Your task to perform on an android device: open app "LiveIn - Share Your Moment" (install if not already installed), go to login, and select forgot password Image 0: 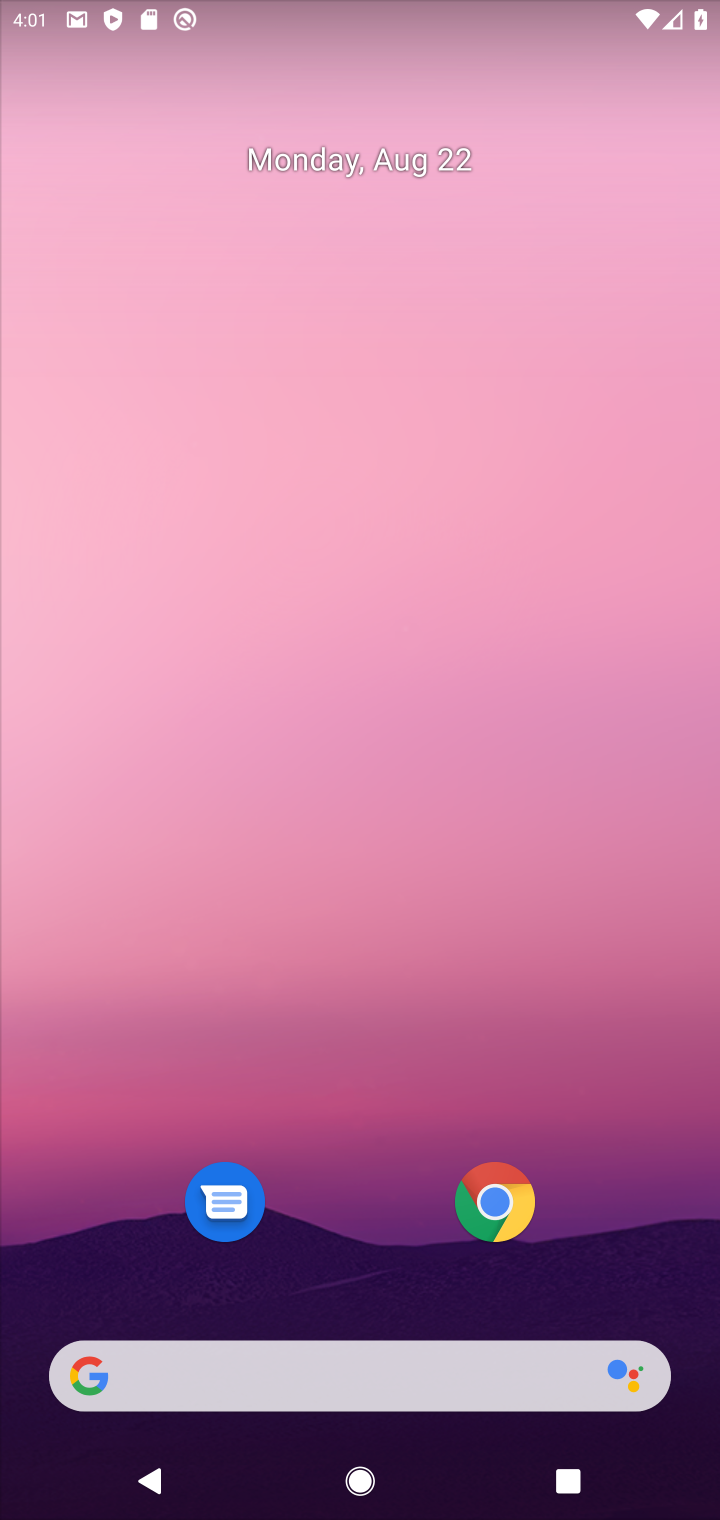
Step 0: drag from (388, 1037) to (449, 336)
Your task to perform on an android device: open app "LiveIn - Share Your Moment" (install if not already installed), go to login, and select forgot password Image 1: 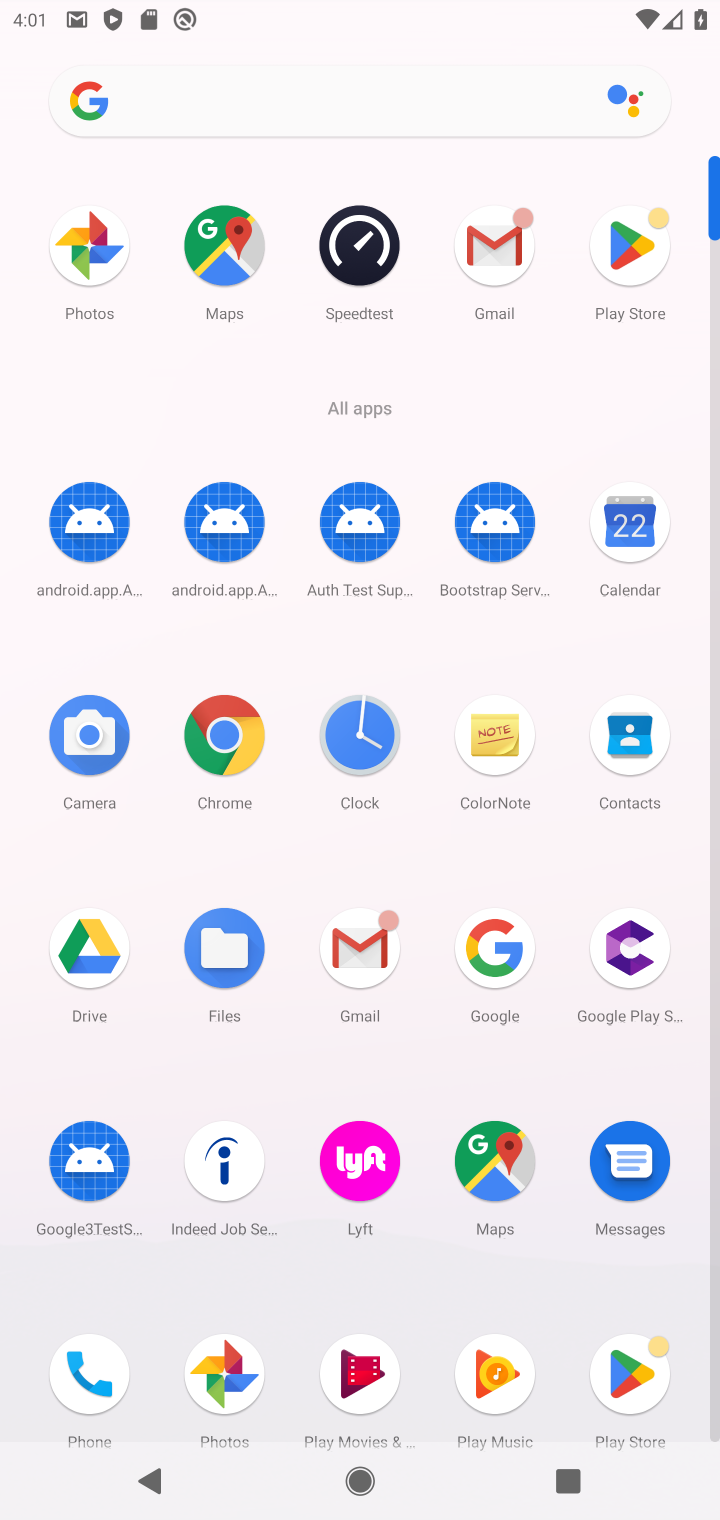
Step 1: click (626, 252)
Your task to perform on an android device: open app "LiveIn - Share Your Moment" (install if not already installed), go to login, and select forgot password Image 2: 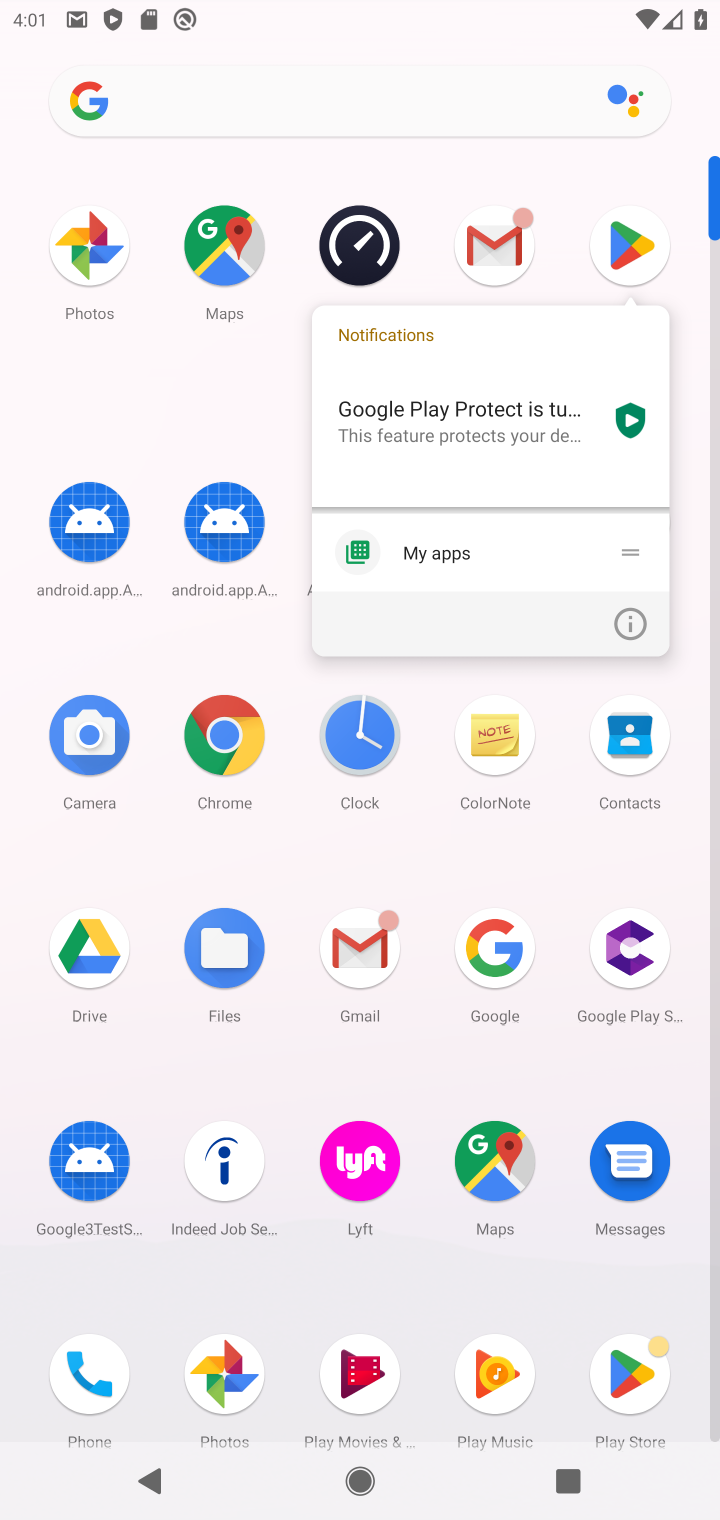
Step 2: click (626, 252)
Your task to perform on an android device: open app "LiveIn - Share Your Moment" (install if not already installed), go to login, and select forgot password Image 3: 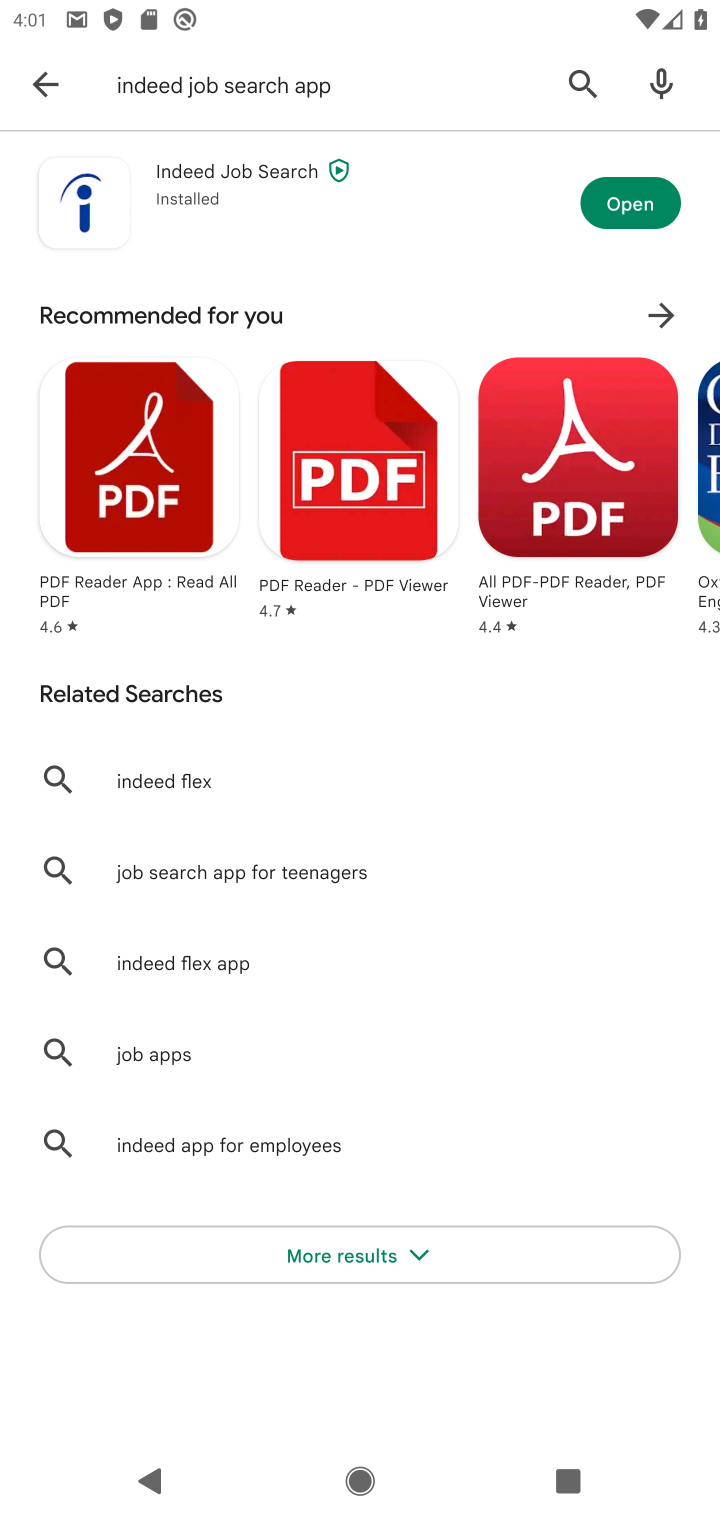
Step 3: click (297, 95)
Your task to perform on an android device: open app "LiveIn - Share Your Moment" (install if not already installed), go to login, and select forgot password Image 4: 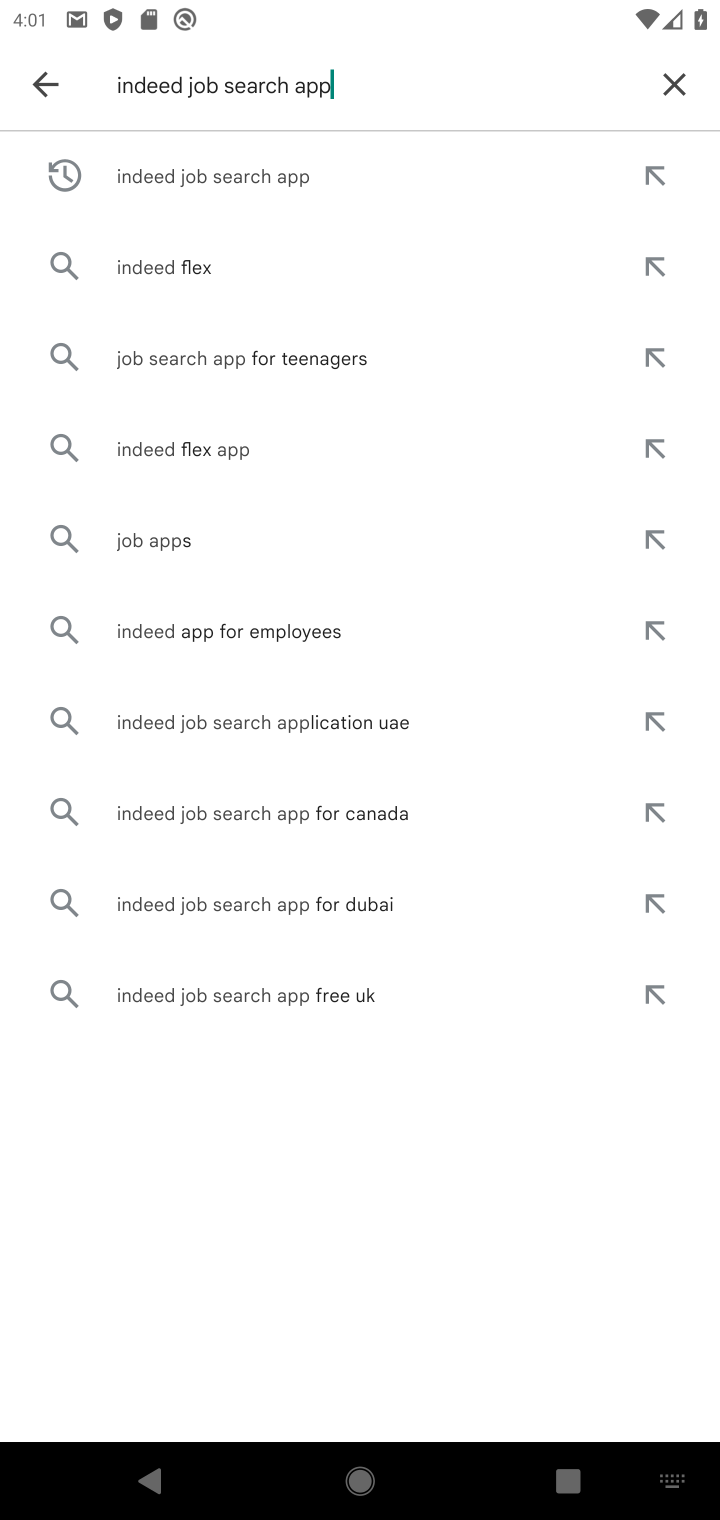
Step 4: click (665, 72)
Your task to perform on an android device: open app "LiveIn - Share Your Moment" (install if not already installed), go to login, and select forgot password Image 5: 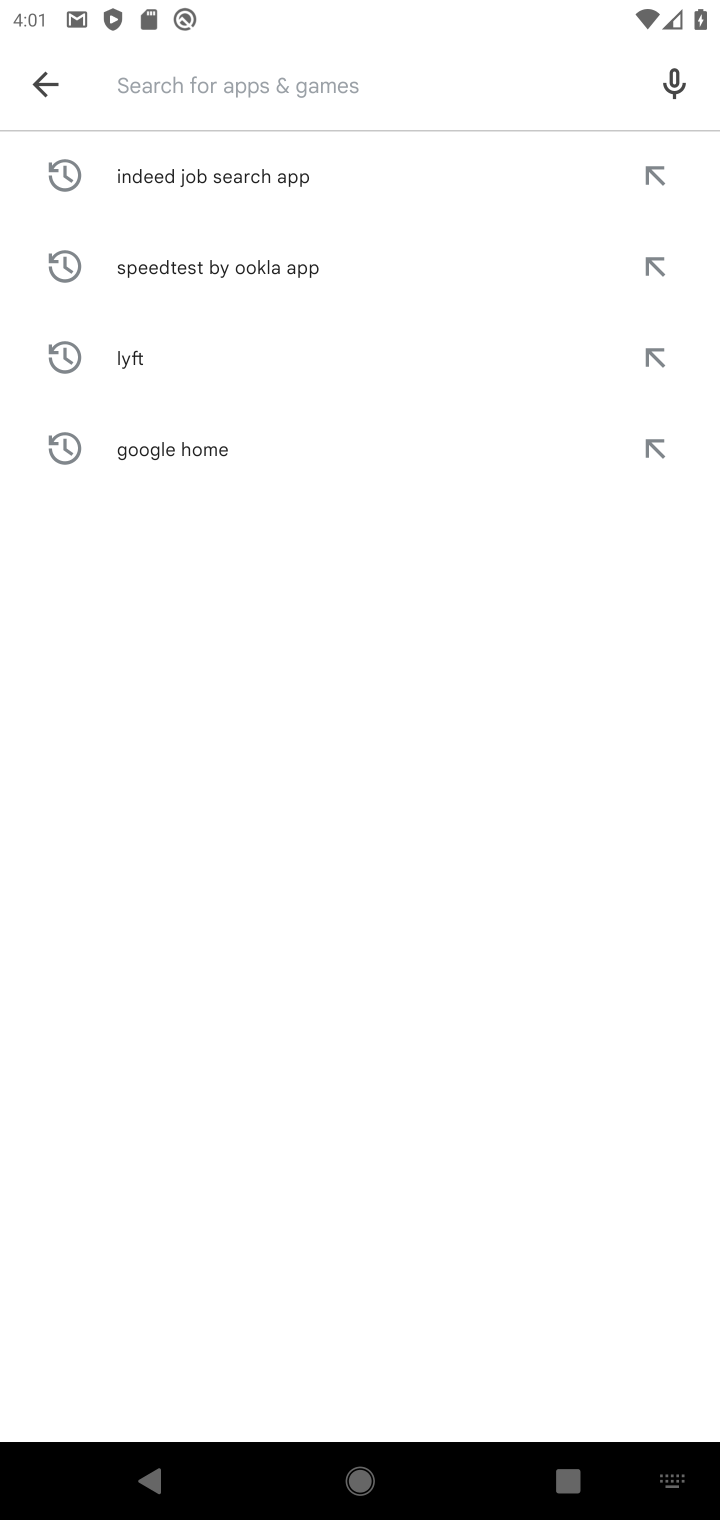
Step 5: type "LiveIn"
Your task to perform on an android device: open app "LiveIn - Share Your Moment" (install if not already installed), go to login, and select forgot password Image 6: 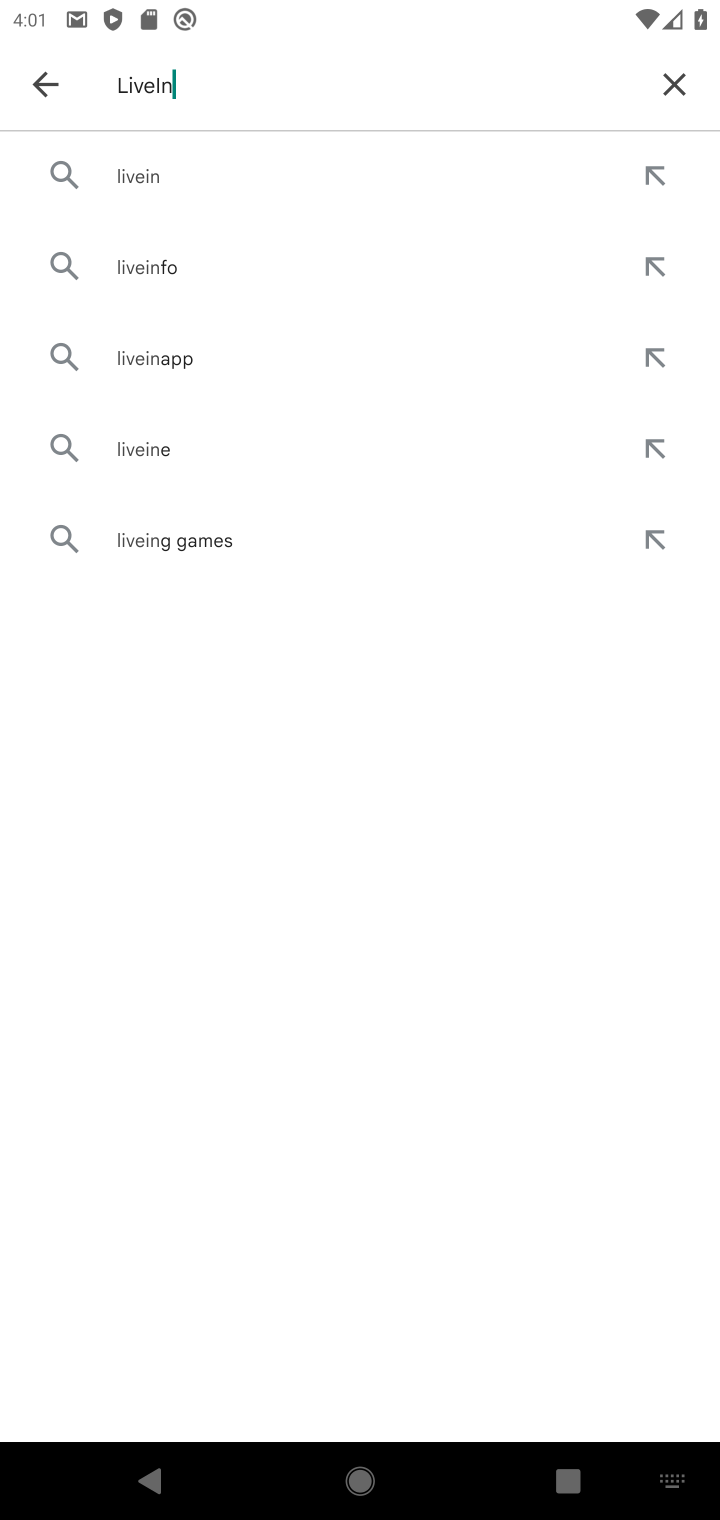
Step 6: click (155, 159)
Your task to perform on an android device: open app "LiveIn - Share Your Moment" (install if not already installed), go to login, and select forgot password Image 7: 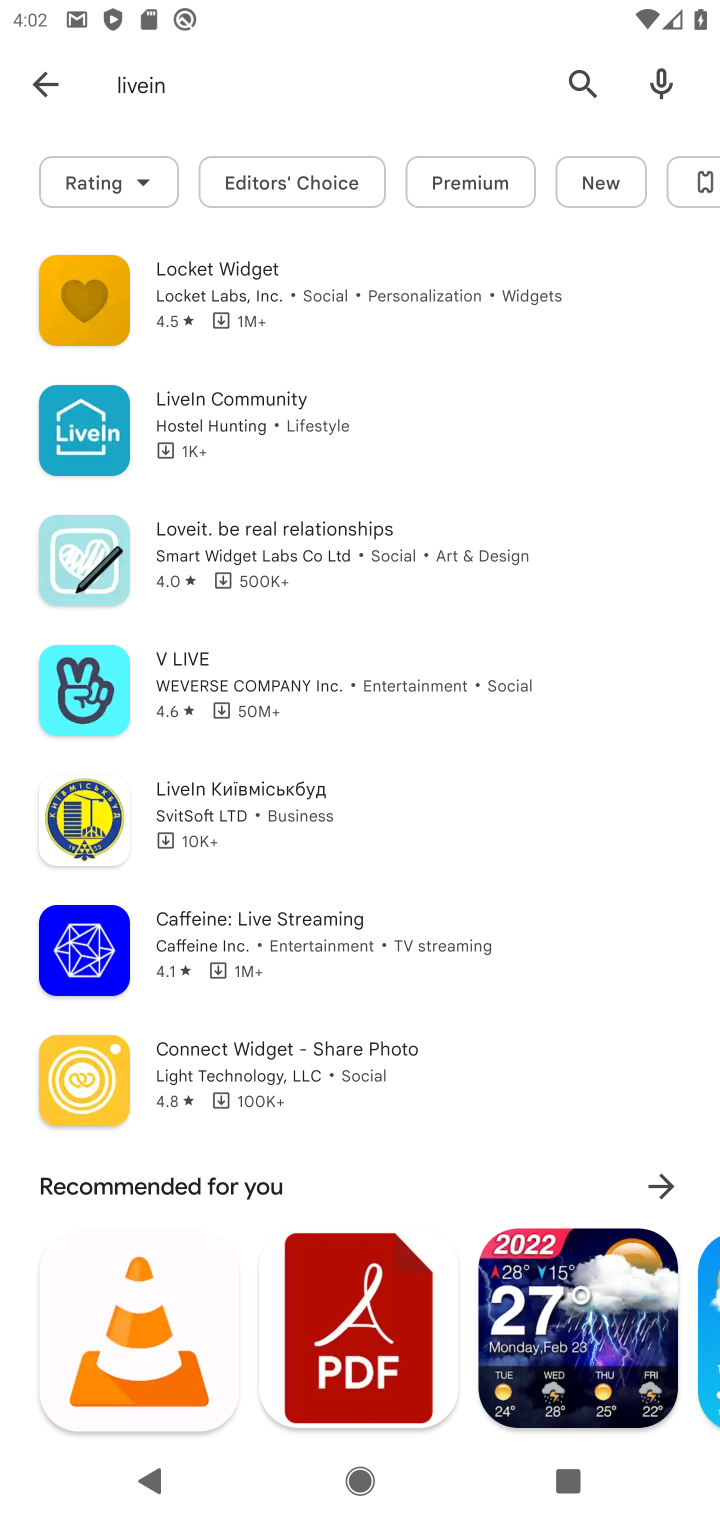
Step 7: task complete